Your task to perform on an android device: see sites visited before in the chrome app Image 0: 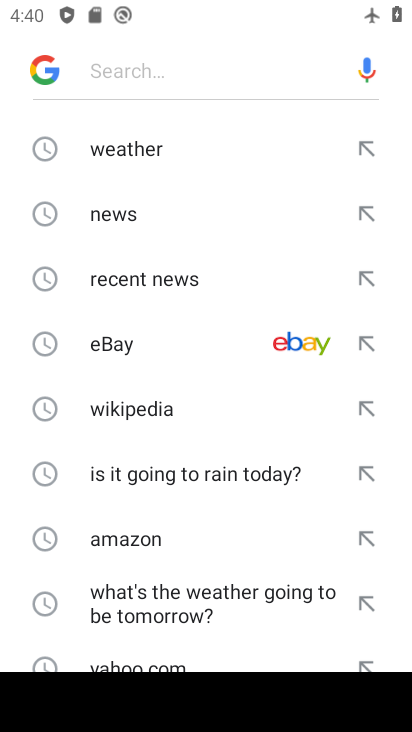
Step 0: press home button
Your task to perform on an android device: see sites visited before in the chrome app Image 1: 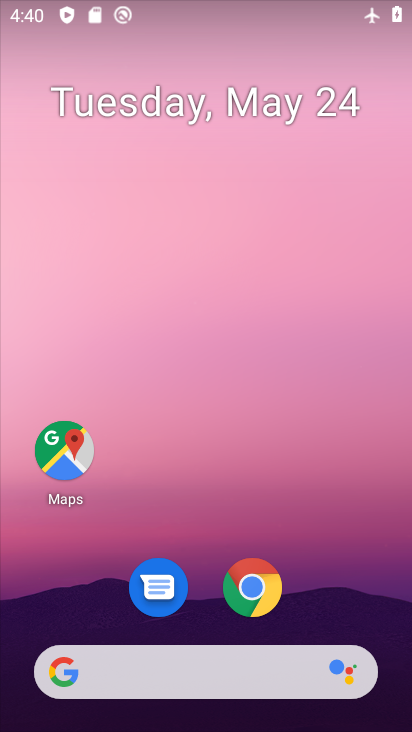
Step 1: drag from (340, 555) to (177, 0)
Your task to perform on an android device: see sites visited before in the chrome app Image 2: 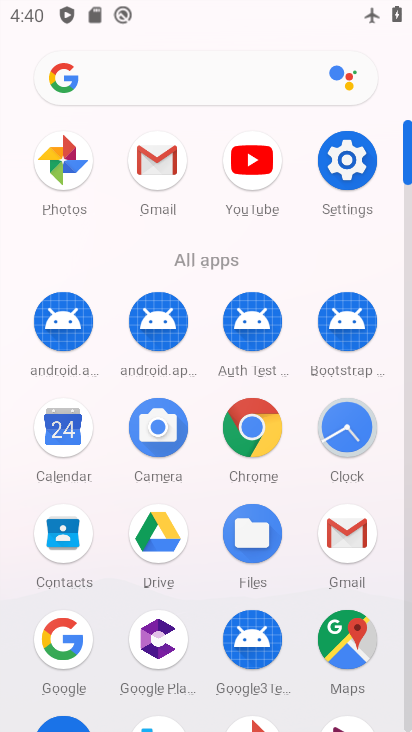
Step 2: click (263, 418)
Your task to perform on an android device: see sites visited before in the chrome app Image 3: 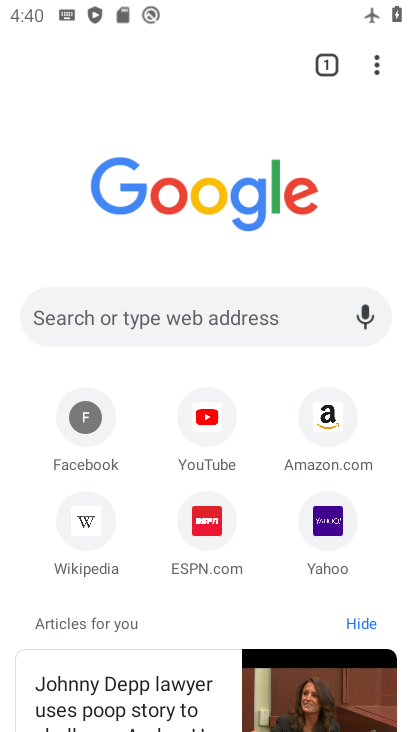
Step 3: click (373, 57)
Your task to perform on an android device: see sites visited before in the chrome app Image 4: 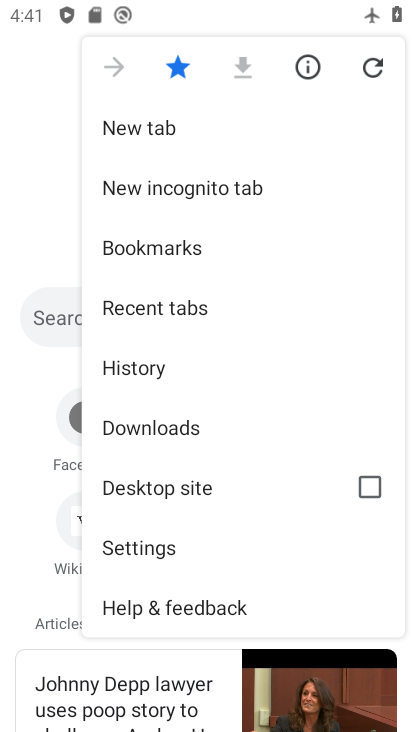
Step 4: click (172, 368)
Your task to perform on an android device: see sites visited before in the chrome app Image 5: 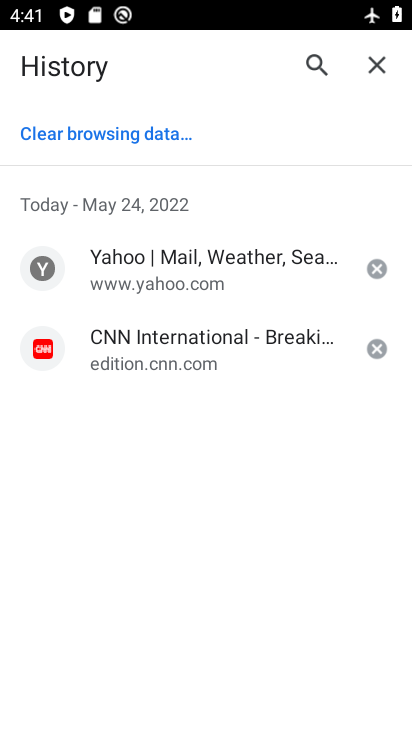
Step 5: task complete